Your task to perform on an android device: set an alarm Image 0: 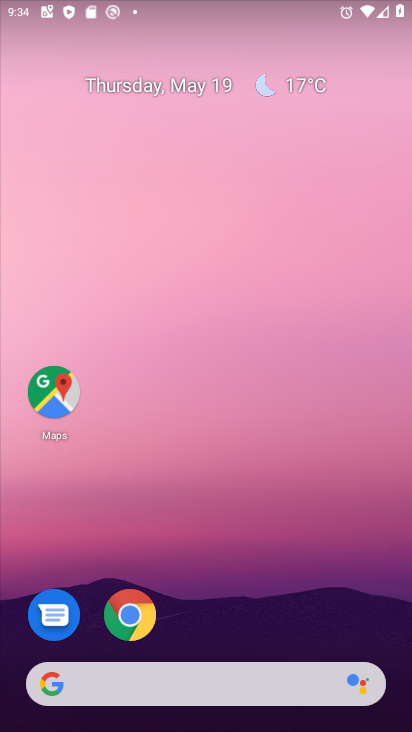
Step 0: drag from (226, 594) to (99, 82)
Your task to perform on an android device: set an alarm Image 1: 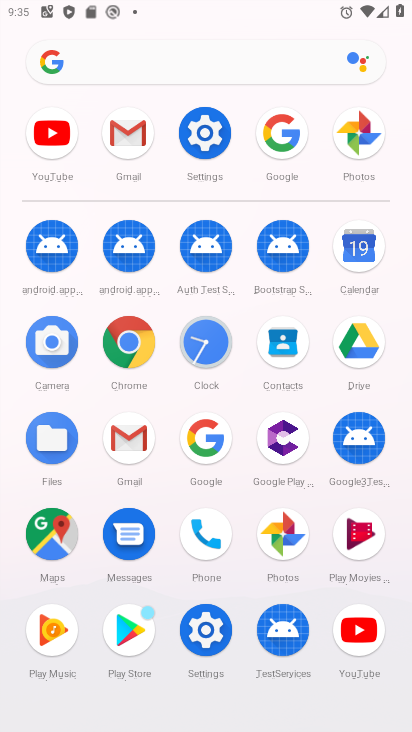
Step 1: click (211, 336)
Your task to perform on an android device: set an alarm Image 2: 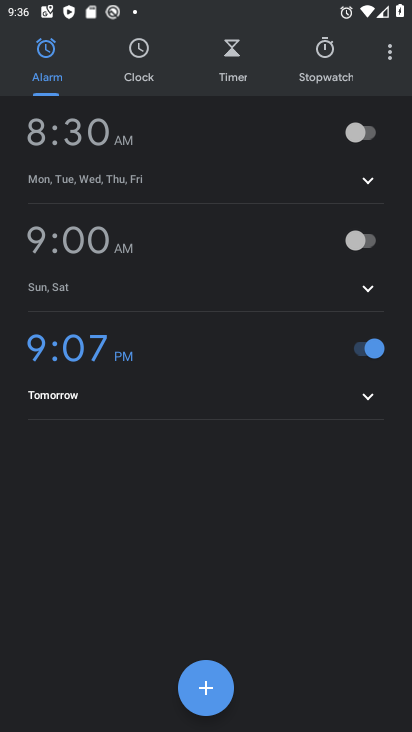
Step 2: click (197, 677)
Your task to perform on an android device: set an alarm Image 3: 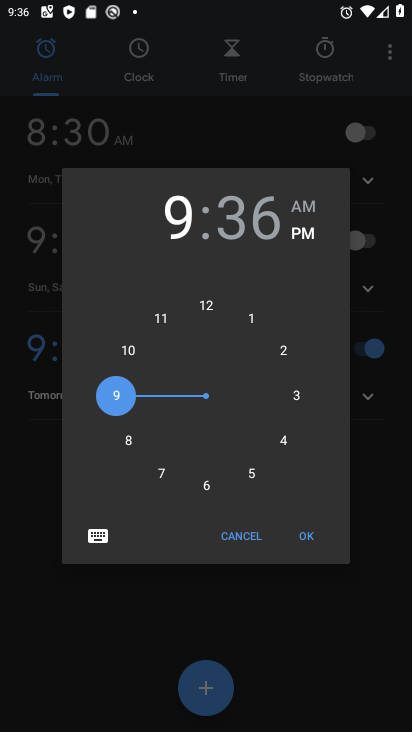
Step 3: click (297, 524)
Your task to perform on an android device: set an alarm Image 4: 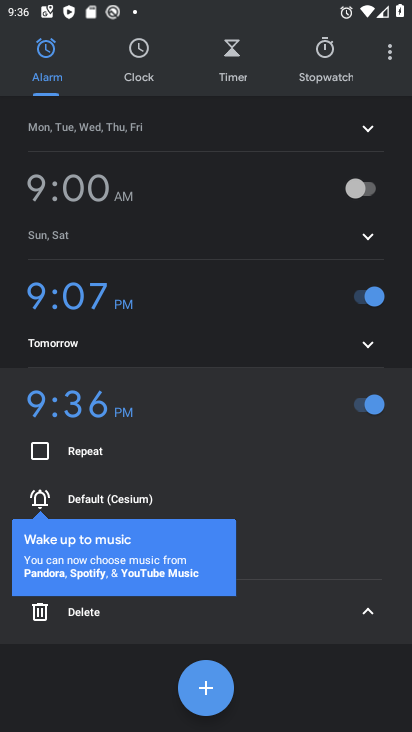
Step 4: task complete